Your task to perform on an android device: Open my contact list Image 0: 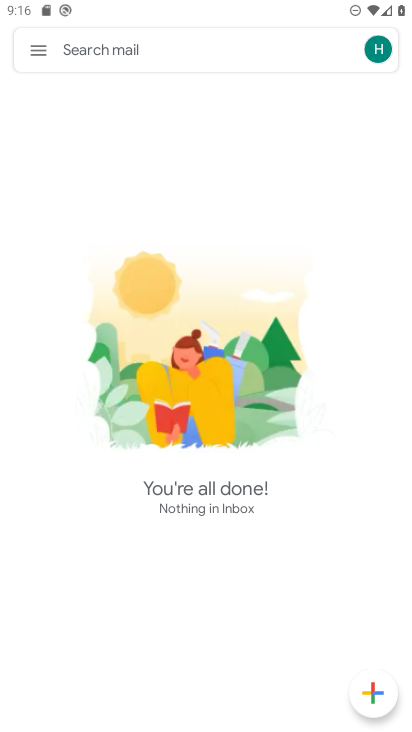
Step 0: press home button
Your task to perform on an android device: Open my contact list Image 1: 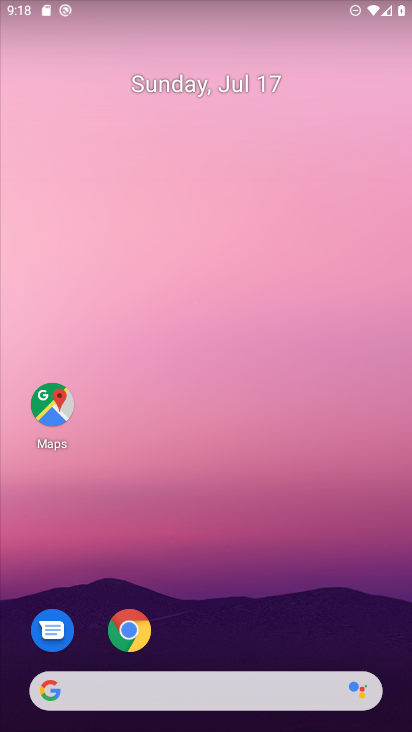
Step 1: drag from (333, 643) to (284, 6)
Your task to perform on an android device: Open my contact list Image 2: 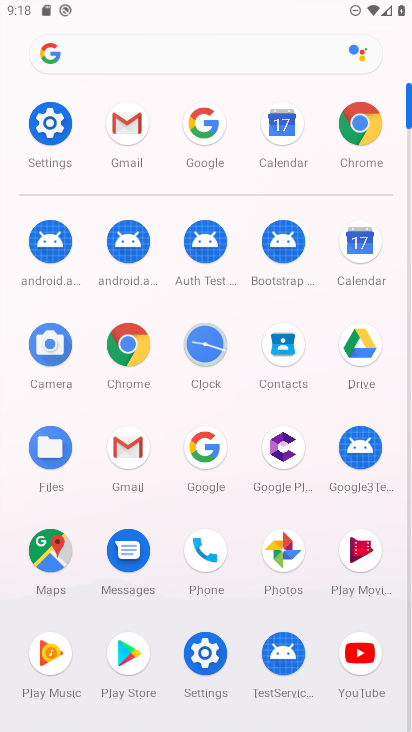
Step 2: click (287, 359)
Your task to perform on an android device: Open my contact list Image 3: 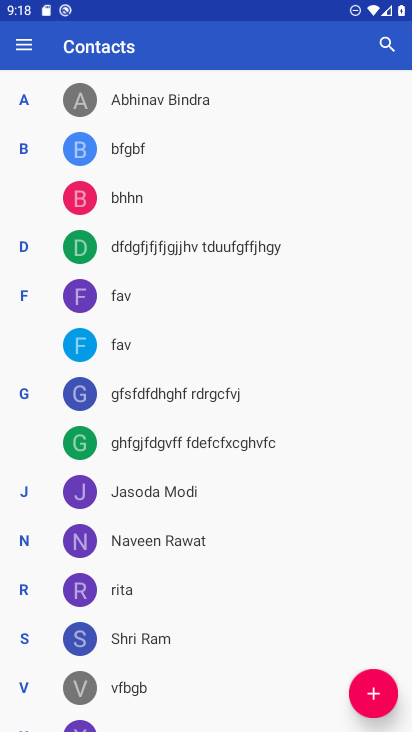
Step 3: task complete